Your task to perform on an android device: Open Google Maps Image 0: 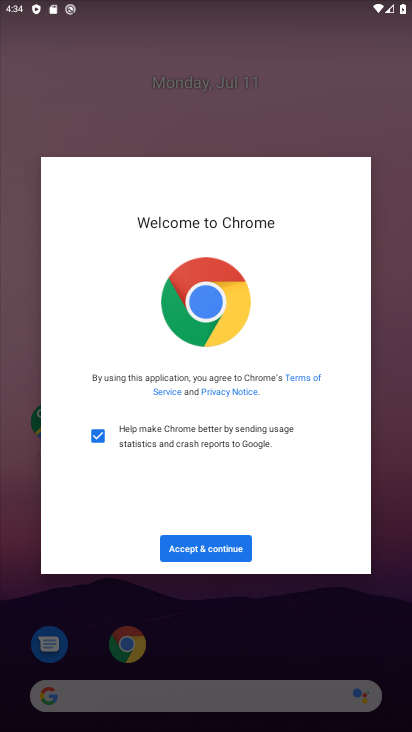
Step 0: press home button
Your task to perform on an android device: Open Google Maps Image 1: 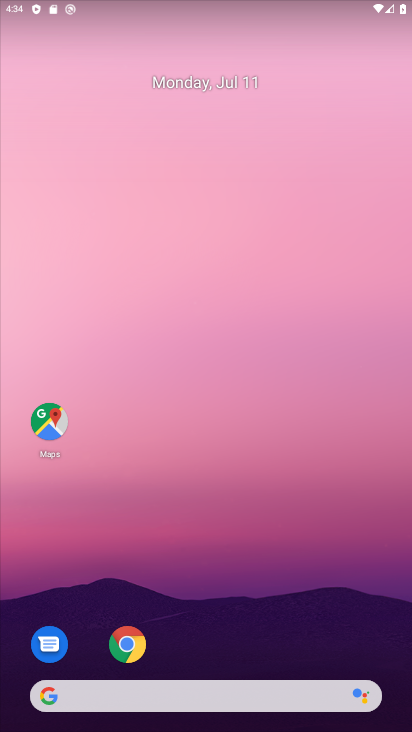
Step 1: click (50, 423)
Your task to perform on an android device: Open Google Maps Image 2: 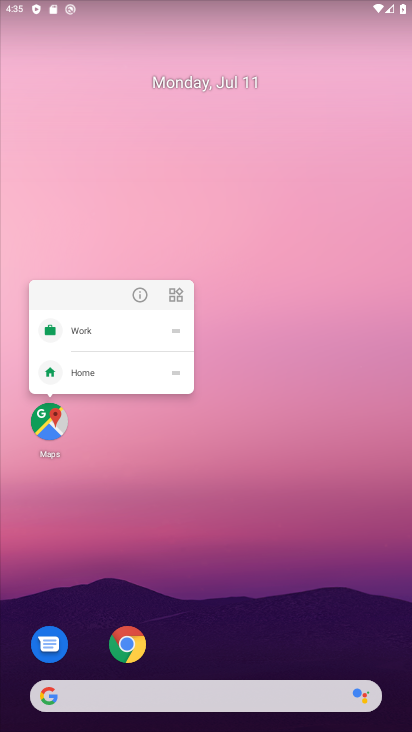
Step 2: click (50, 423)
Your task to perform on an android device: Open Google Maps Image 3: 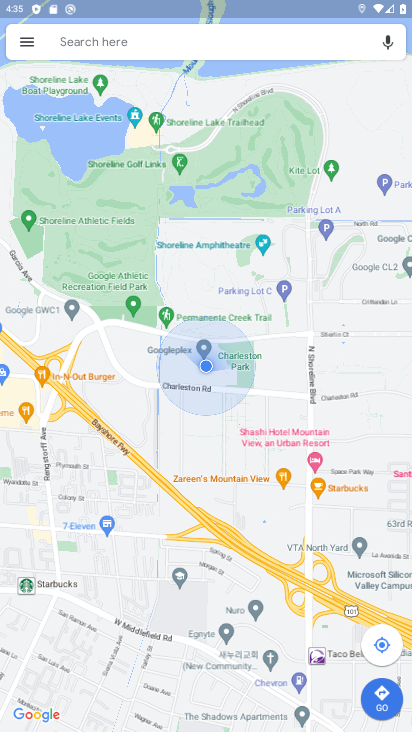
Step 3: task complete